Your task to perform on an android device: turn off location Image 0: 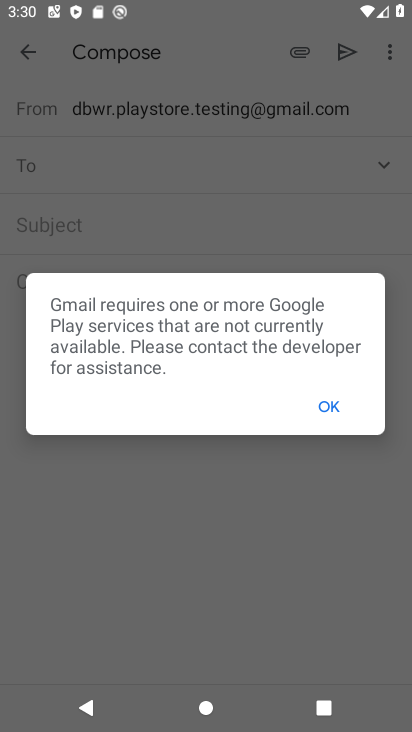
Step 0: press back button
Your task to perform on an android device: turn off location Image 1: 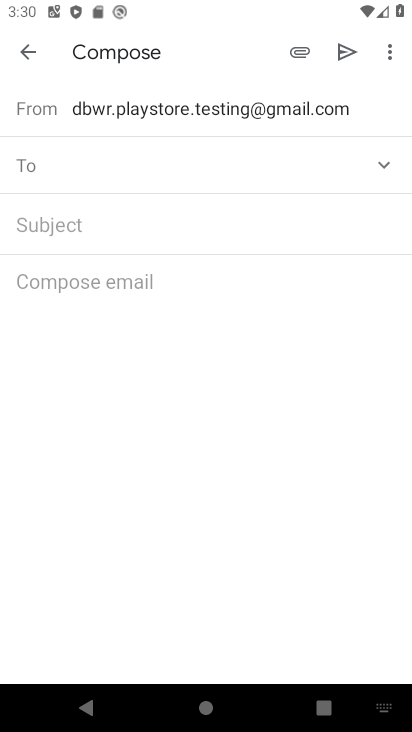
Step 1: press back button
Your task to perform on an android device: turn off location Image 2: 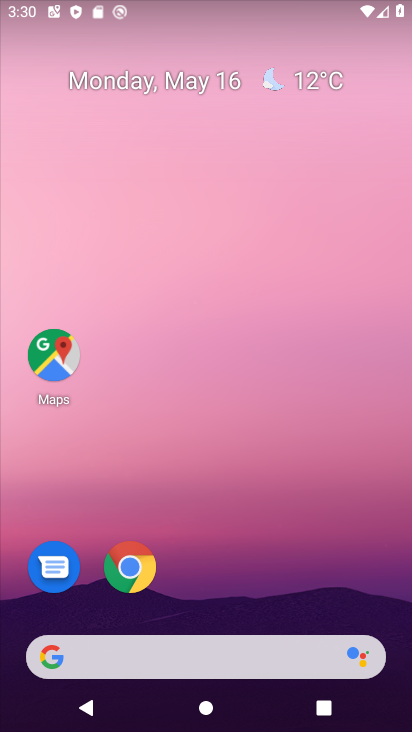
Step 2: drag from (235, 508) to (170, 22)
Your task to perform on an android device: turn off location Image 3: 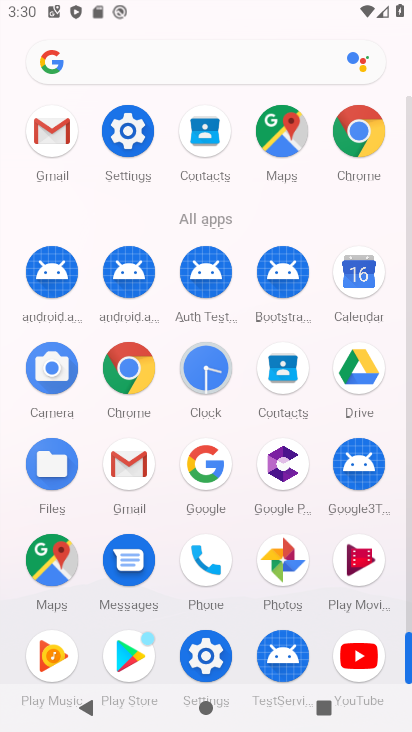
Step 3: drag from (2, 507) to (0, 226)
Your task to perform on an android device: turn off location Image 4: 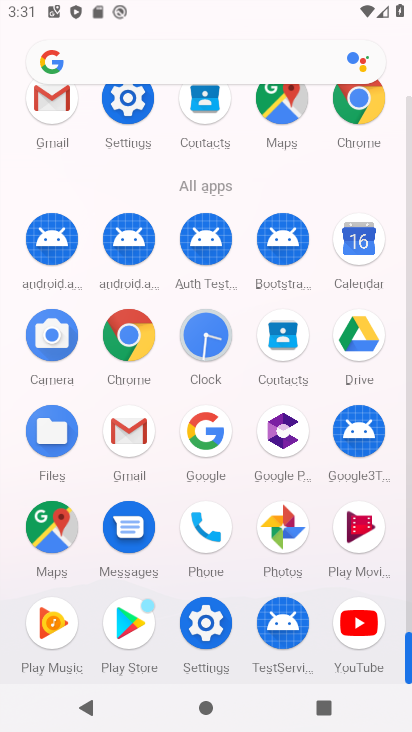
Step 4: click (206, 623)
Your task to perform on an android device: turn off location Image 5: 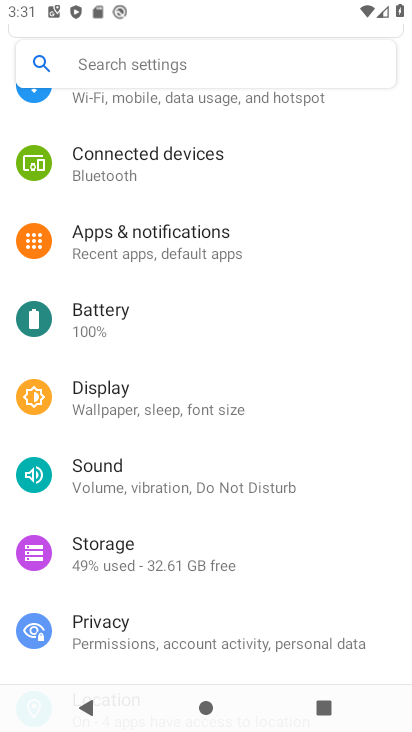
Step 5: drag from (277, 238) to (265, 583)
Your task to perform on an android device: turn off location Image 6: 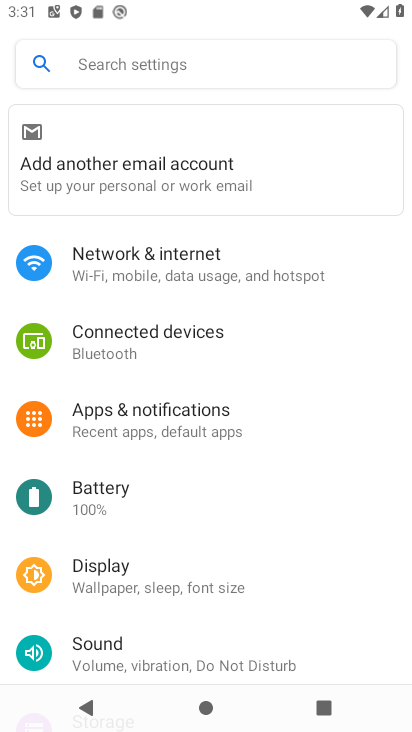
Step 6: drag from (214, 561) to (229, 175)
Your task to perform on an android device: turn off location Image 7: 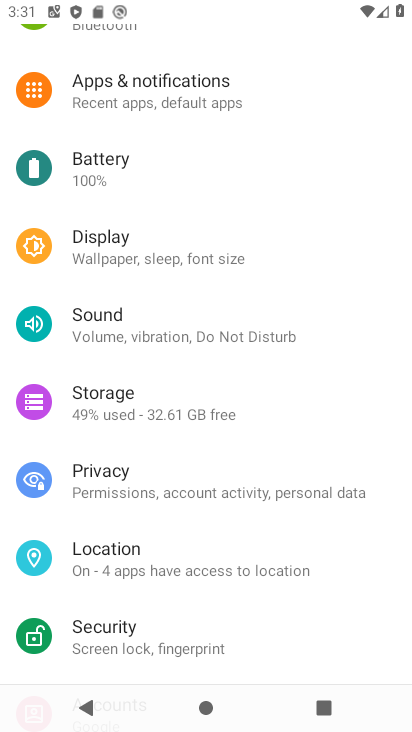
Step 7: click (125, 560)
Your task to perform on an android device: turn off location Image 8: 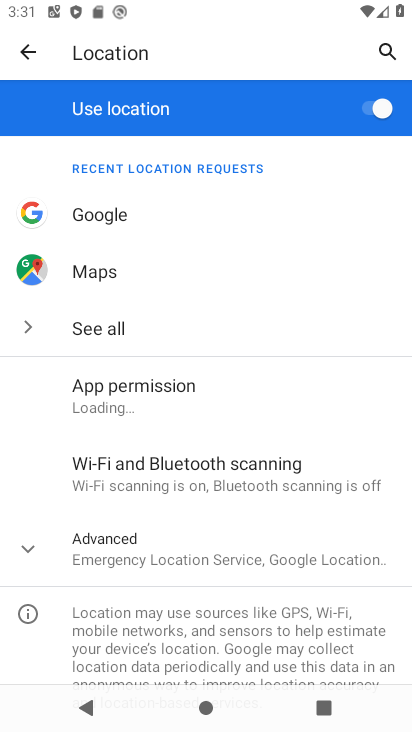
Step 8: click (80, 539)
Your task to perform on an android device: turn off location Image 9: 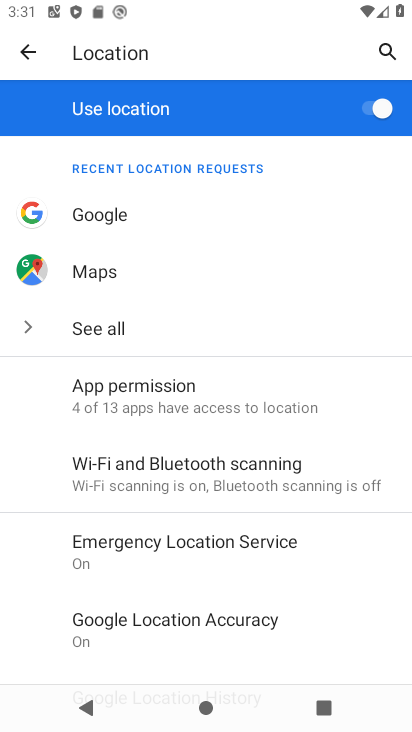
Step 9: click (378, 105)
Your task to perform on an android device: turn off location Image 10: 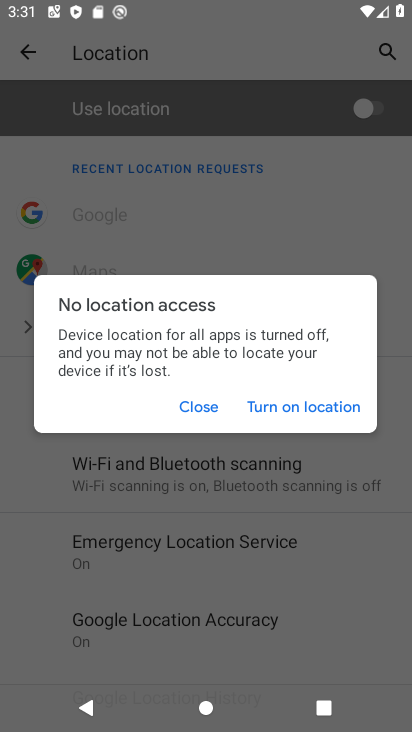
Step 10: click (197, 403)
Your task to perform on an android device: turn off location Image 11: 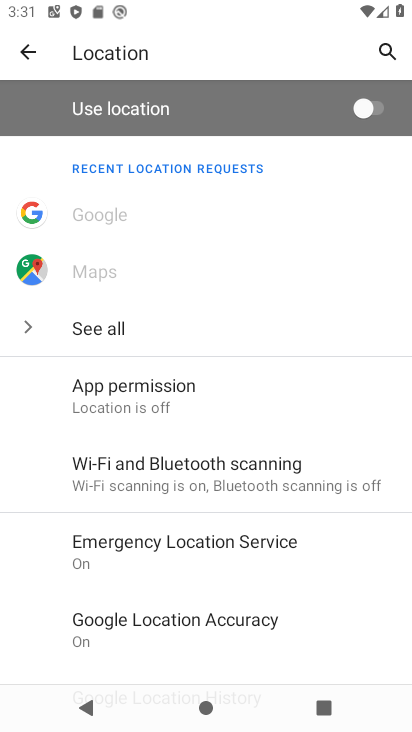
Step 11: task complete